Your task to perform on an android device: What's on my calendar today? Image 0: 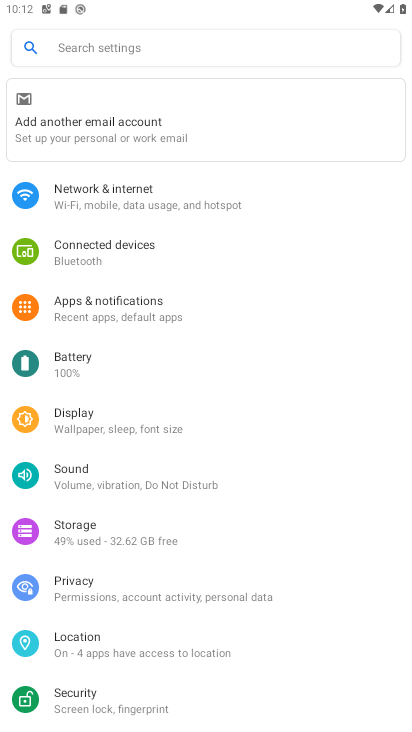
Step 0: press back button
Your task to perform on an android device: What's on my calendar today? Image 1: 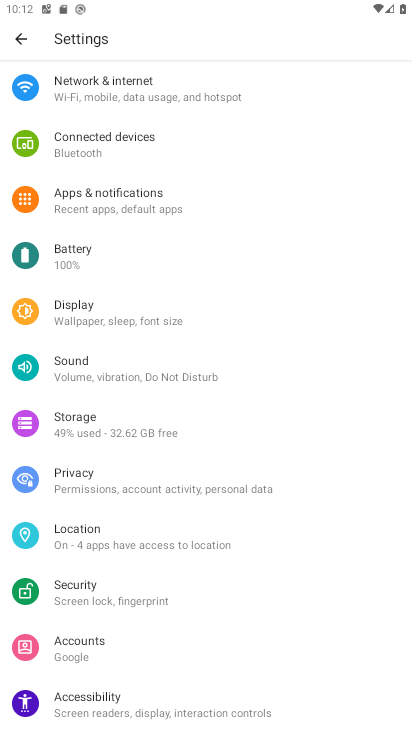
Step 1: press back button
Your task to perform on an android device: What's on my calendar today? Image 2: 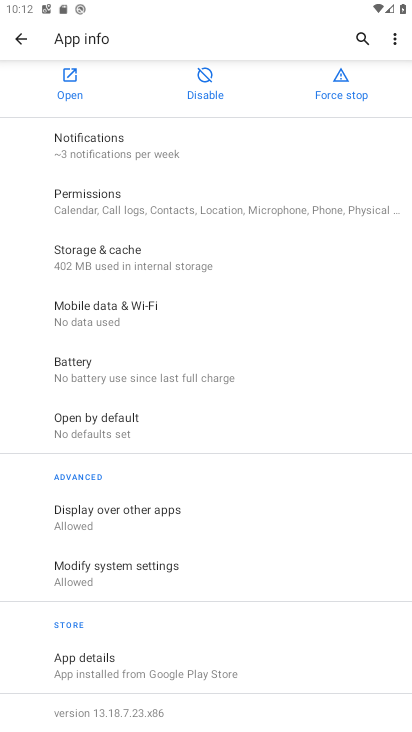
Step 2: press back button
Your task to perform on an android device: What's on my calendar today? Image 3: 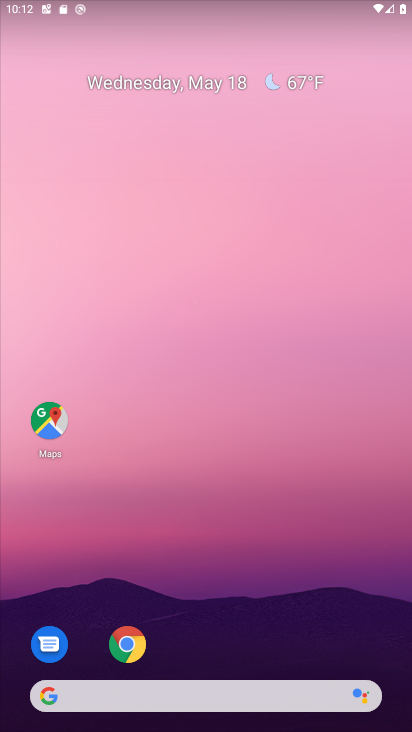
Step 3: drag from (250, 590) to (155, 86)
Your task to perform on an android device: What's on my calendar today? Image 4: 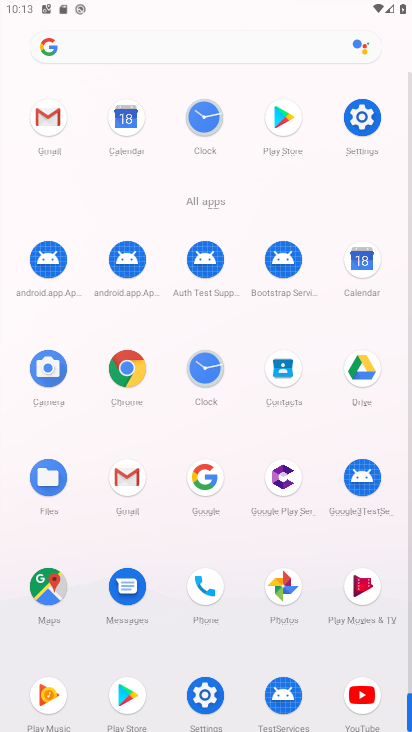
Step 4: click (365, 262)
Your task to perform on an android device: What's on my calendar today? Image 5: 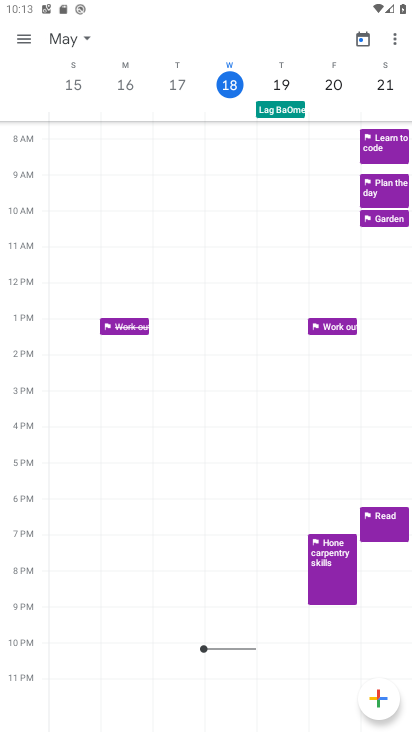
Step 5: click (367, 40)
Your task to perform on an android device: What's on my calendar today? Image 6: 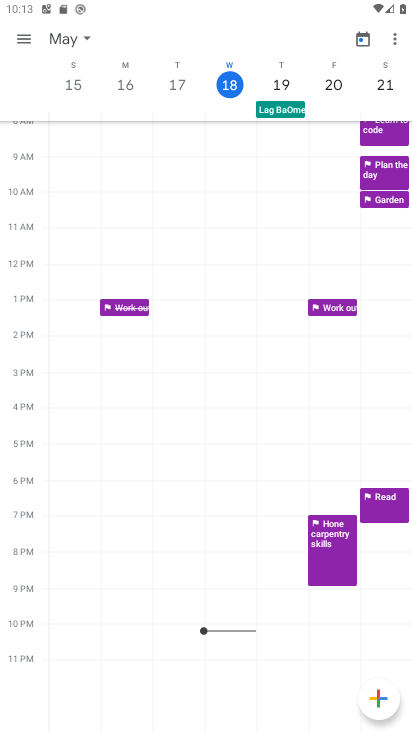
Step 6: click (24, 39)
Your task to perform on an android device: What's on my calendar today? Image 7: 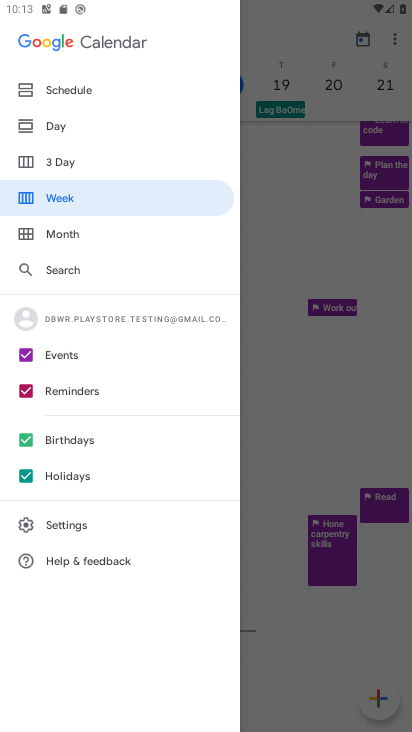
Step 7: click (43, 79)
Your task to perform on an android device: What's on my calendar today? Image 8: 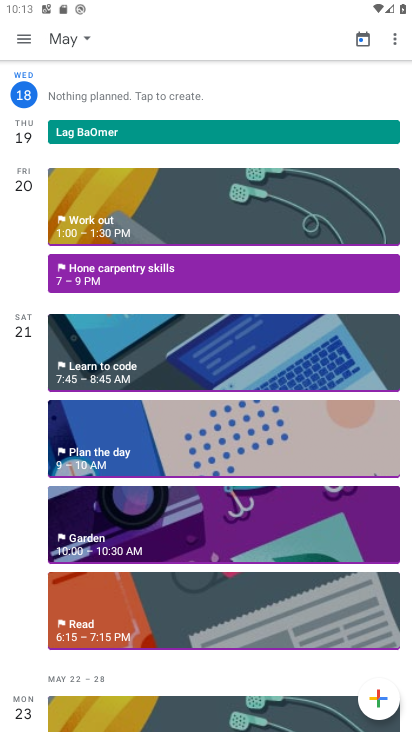
Step 8: task complete